Your task to perform on an android device: Open the web browser Image 0: 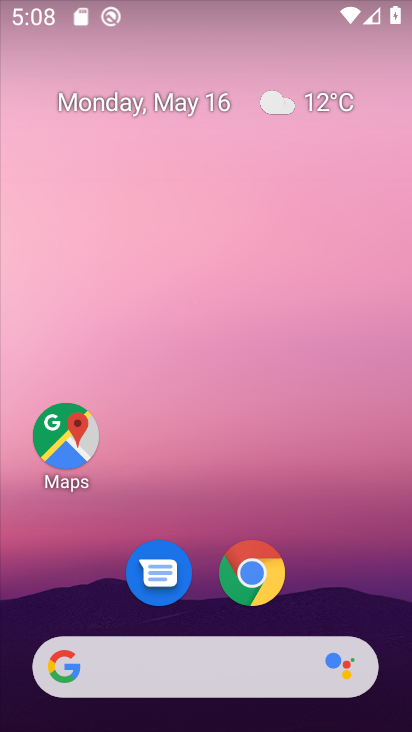
Step 0: click (224, 568)
Your task to perform on an android device: Open the web browser Image 1: 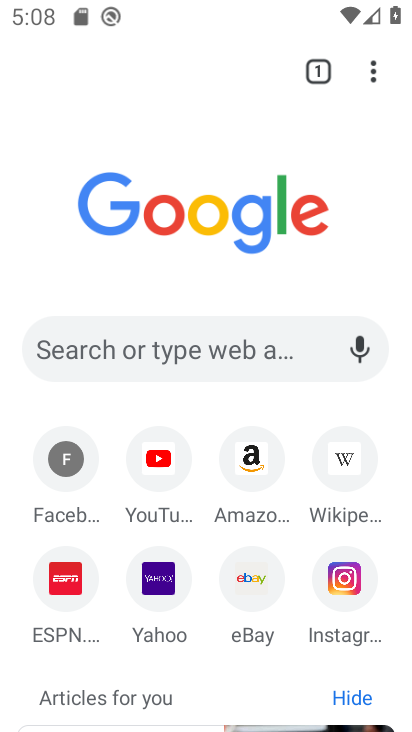
Step 1: task complete